Your task to perform on an android device: set the stopwatch Image 0: 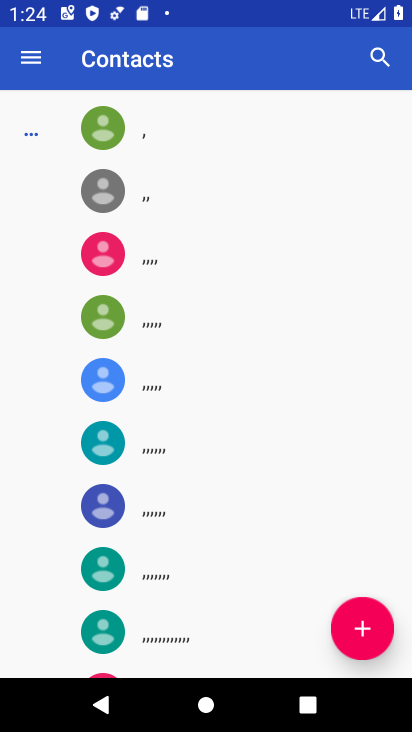
Step 0: press home button
Your task to perform on an android device: set the stopwatch Image 1: 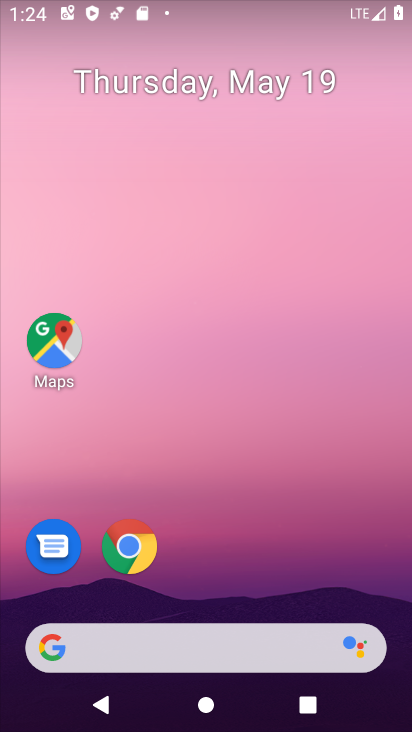
Step 1: drag from (222, 613) to (303, 50)
Your task to perform on an android device: set the stopwatch Image 2: 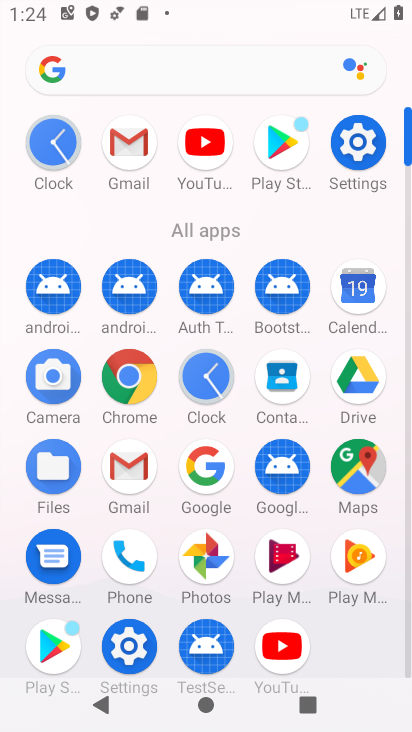
Step 2: click (56, 135)
Your task to perform on an android device: set the stopwatch Image 3: 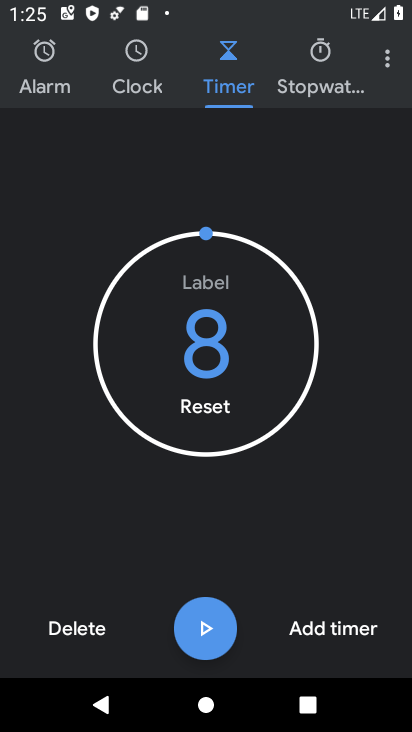
Step 3: click (334, 64)
Your task to perform on an android device: set the stopwatch Image 4: 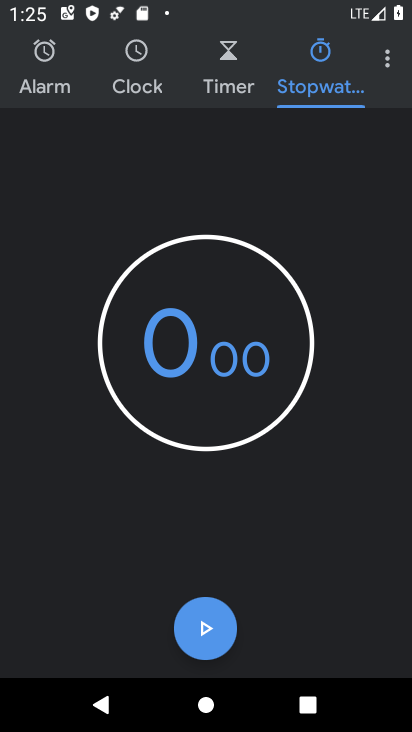
Step 4: click (211, 620)
Your task to perform on an android device: set the stopwatch Image 5: 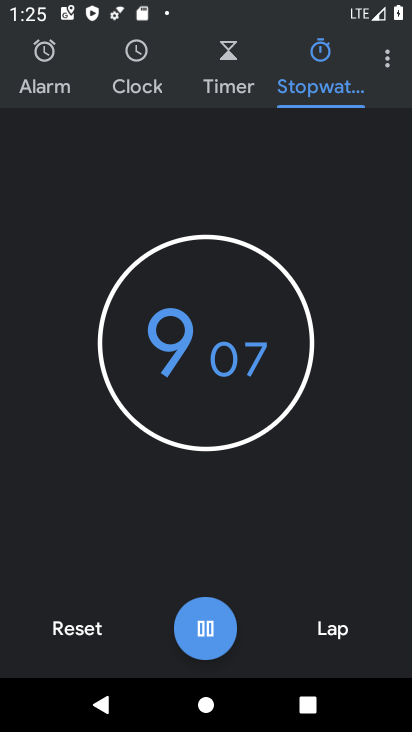
Step 5: click (196, 632)
Your task to perform on an android device: set the stopwatch Image 6: 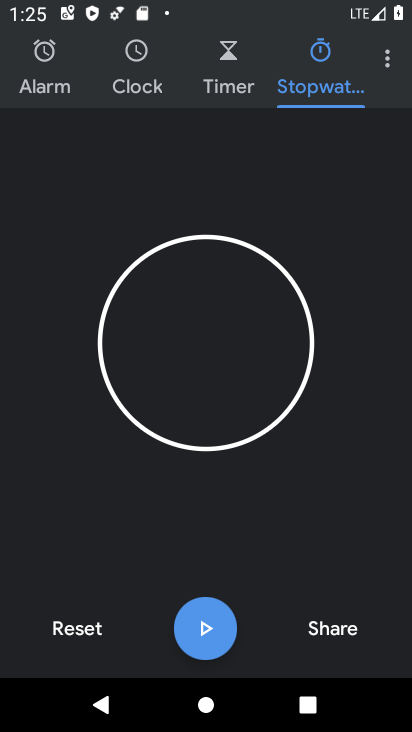
Step 6: task complete